Your task to perform on an android device: Go to Yahoo.com Image 0: 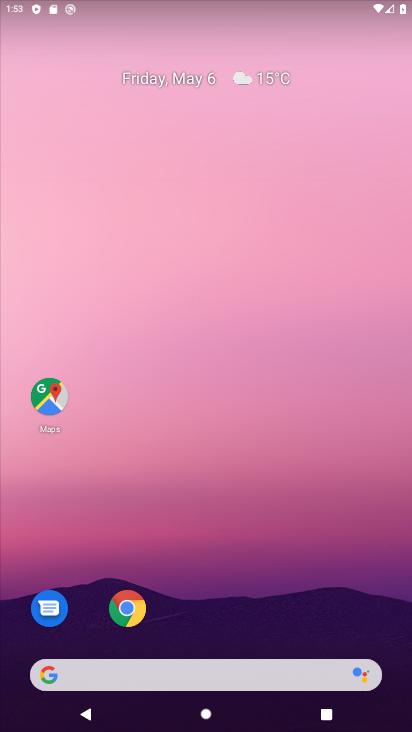
Step 0: click (125, 608)
Your task to perform on an android device: Go to Yahoo.com Image 1: 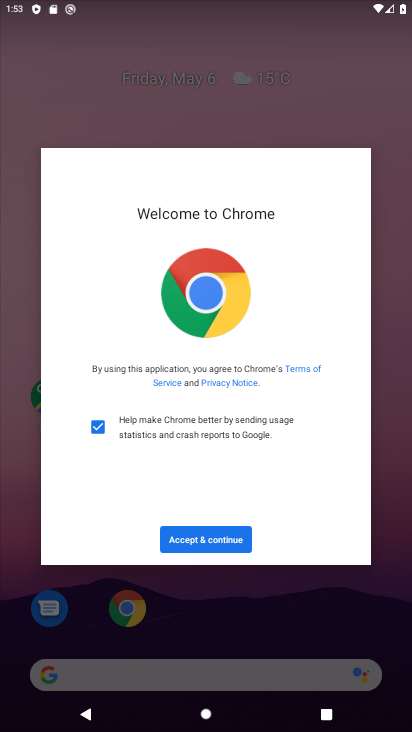
Step 1: click (185, 535)
Your task to perform on an android device: Go to Yahoo.com Image 2: 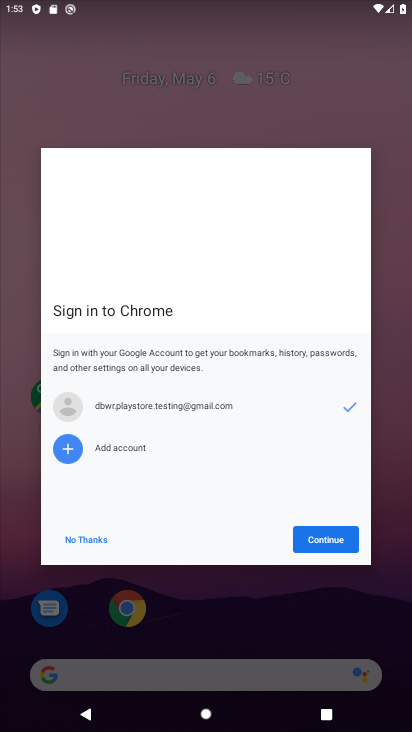
Step 2: click (315, 534)
Your task to perform on an android device: Go to Yahoo.com Image 3: 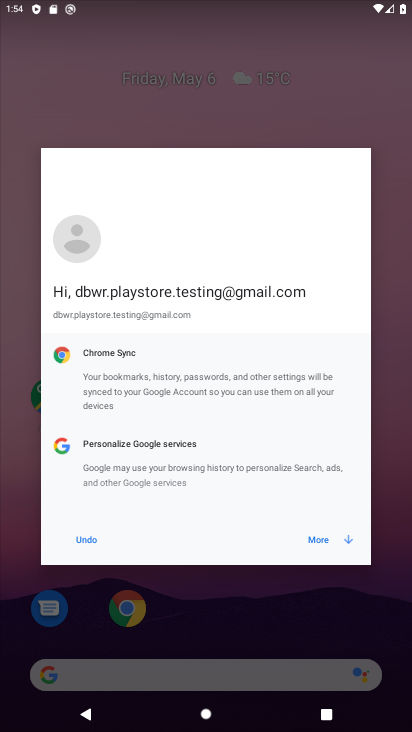
Step 3: click (321, 539)
Your task to perform on an android device: Go to Yahoo.com Image 4: 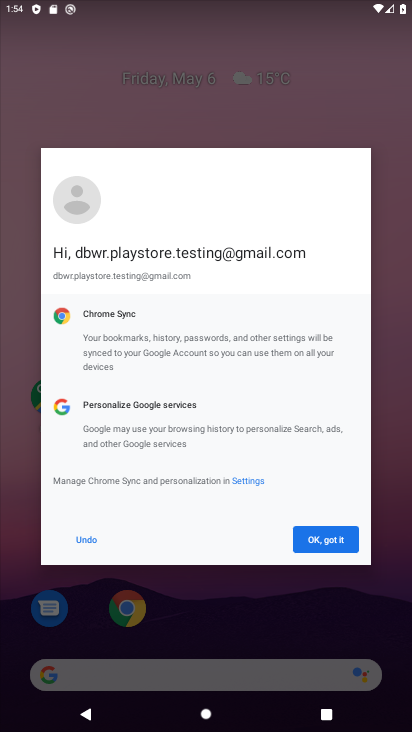
Step 4: click (321, 539)
Your task to perform on an android device: Go to Yahoo.com Image 5: 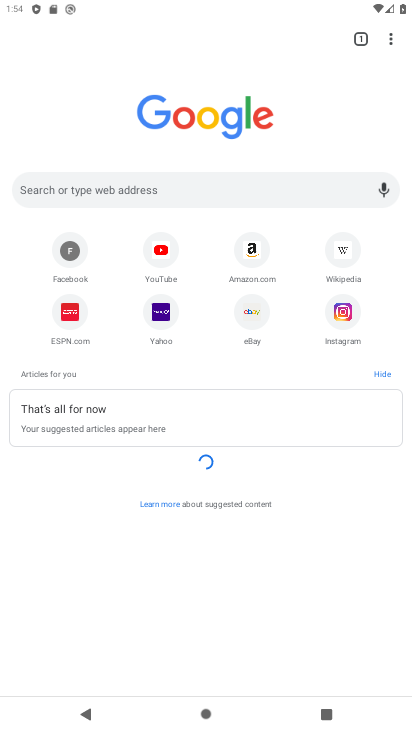
Step 5: click (185, 184)
Your task to perform on an android device: Go to Yahoo.com Image 6: 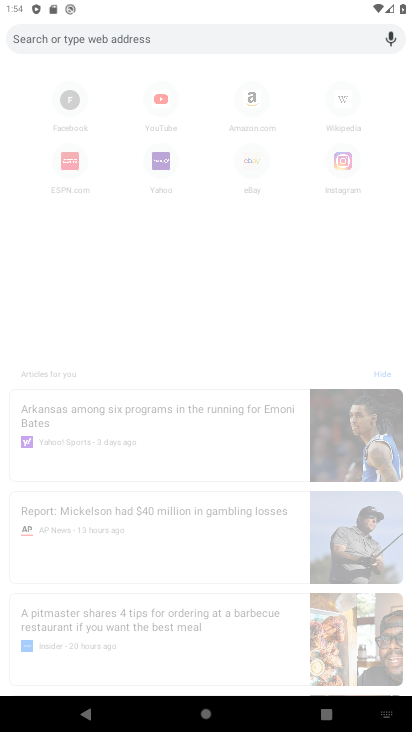
Step 6: type "Yahoo.com"
Your task to perform on an android device: Go to Yahoo.com Image 7: 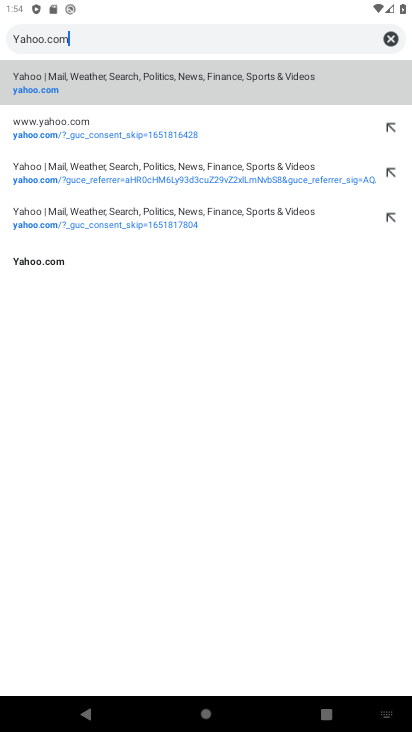
Step 7: type ""
Your task to perform on an android device: Go to Yahoo.com Image 8: 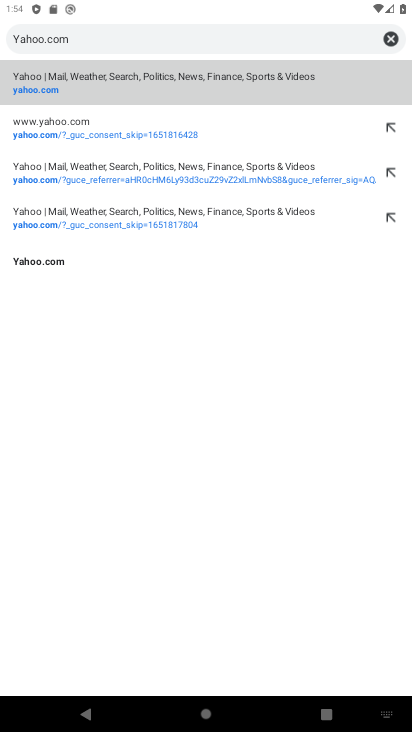
Step 8: click (40, 261)
Your task to perform on an android device: Go to Yahoo.com Image 9: 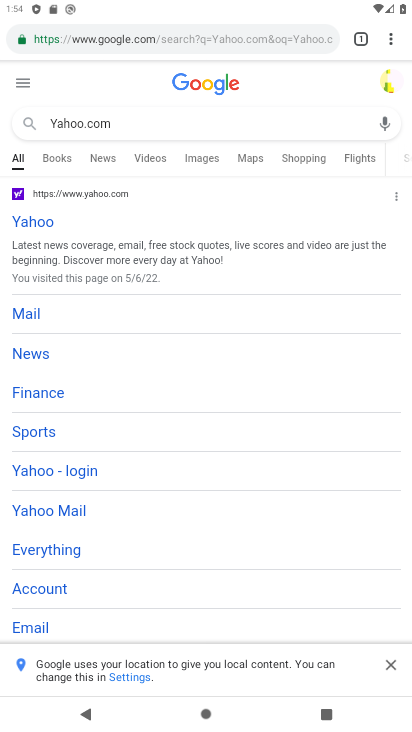
Step 9: click (40, 225)
Your task to perform on an android device: Go to Yahoo.com Image 10: 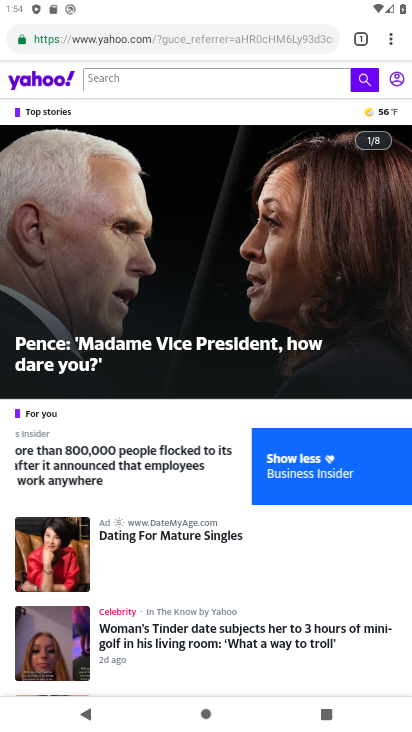
Step 10: task complete